Your task to perform on an android device: Search for sushi restaurants on Maps Image 0: 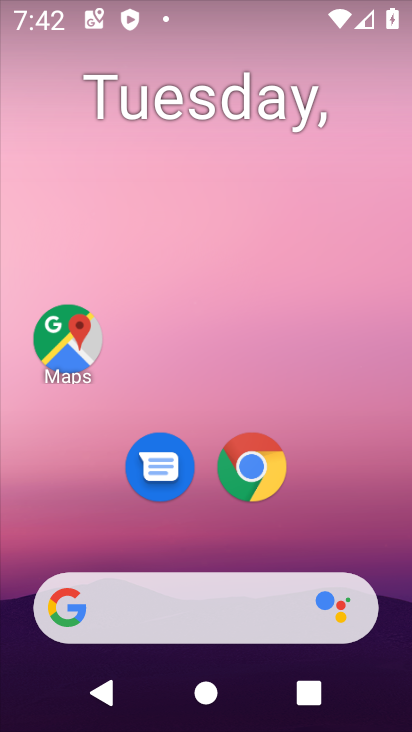
Step 0: drag from (393, 543) to (294, 104)
Your task to perform on an android device: Search for sushi restaurants on Maps Image 1: 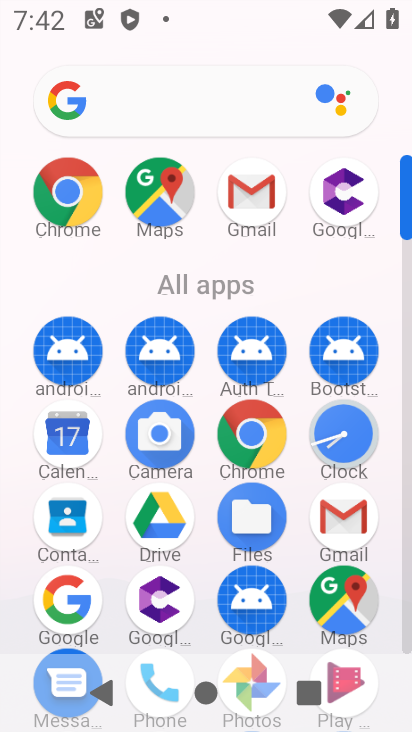
Step 1: click (165, 176)
Your task to perform on an android device: Search for sushi restaurants on Maps Image 2: 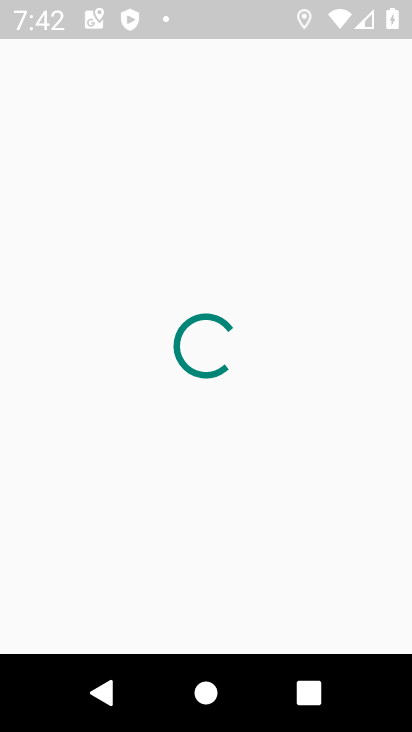
Step 2: click (284, 92)
Your task to perform on an android device: Search for sushi restaurants on Maps Image 3: 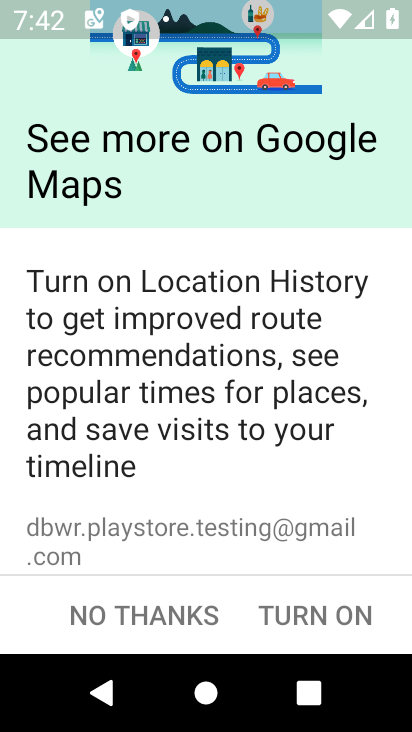
Step 3: click (124, 610)
Your task to perform on an android device: Search for sushi restaurants on Maps Image 4: 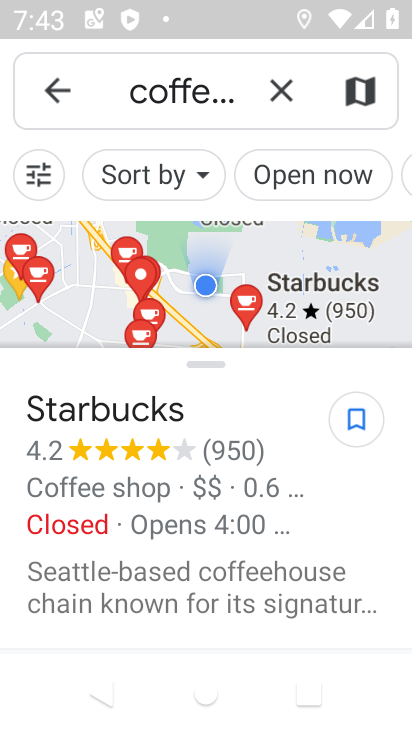
Step 4: click (283, 93)
Your task to perform on an android device: Search for sushi restaurants on Maps Image 5: 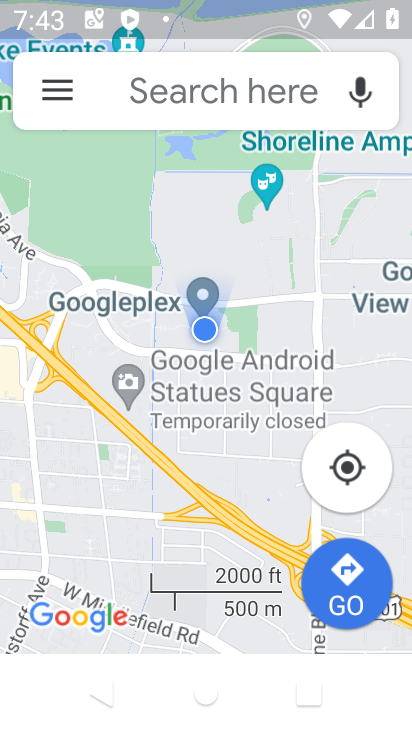
Step 5: click (265, 92)
Your task to perform on an android device: Search for sushi restaurants on Maps Image 6: 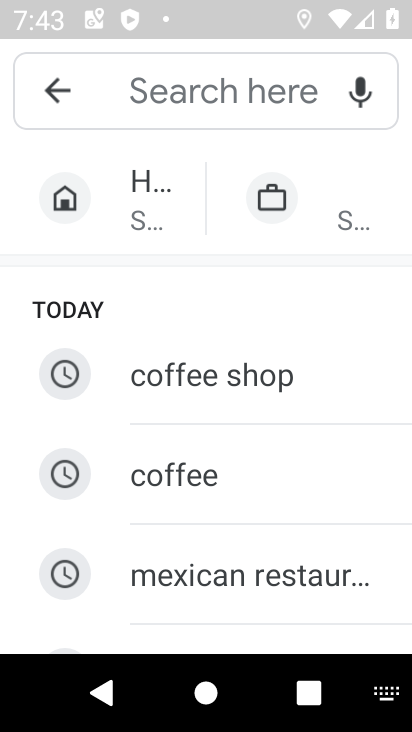
Step 6: type "sushi restaurants"
Your task to perform on an android device: Search for sushi restaurants on Maps Image 7: 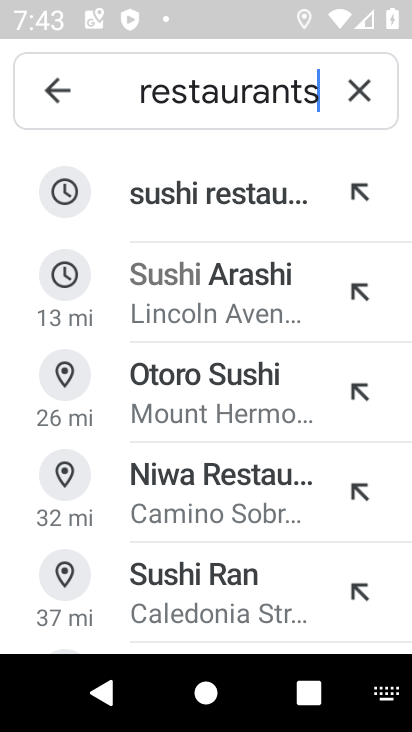
Step 7: click (291, 178)
Your task to perform on an android device: Search for sushi restaurants on Maps Image 8: 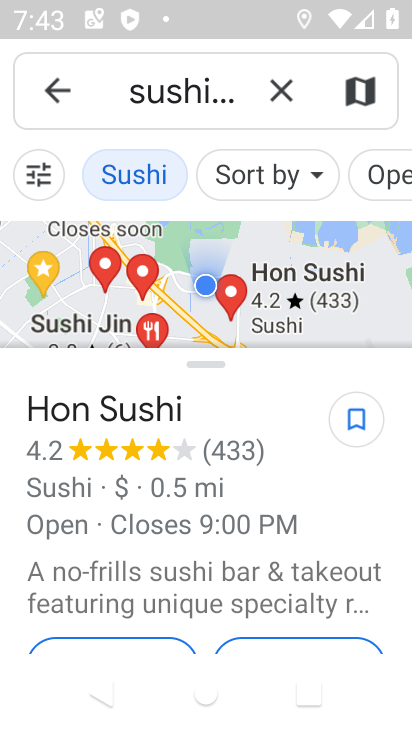
Step 8: task complete